Your task to perform on an android device: snooze an email in the gmail app Image 0: 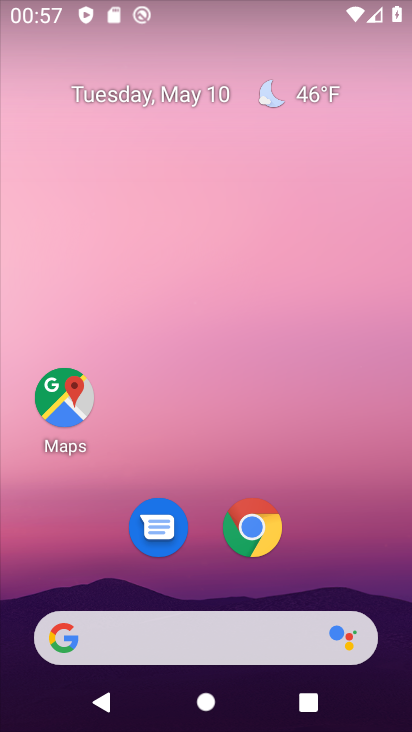
Step 0: drag from (285, 384) to (130, 116)
Your task to perform on an android device: snooze an email in the gmail app Image 1: 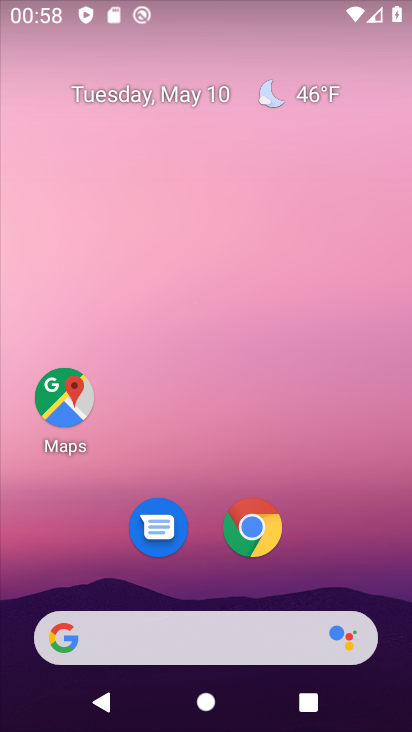
Step 1: drag from (313, 569) to (102, 157)
Your task to perform on an android device: snooze an email in the gmail app Image 2: 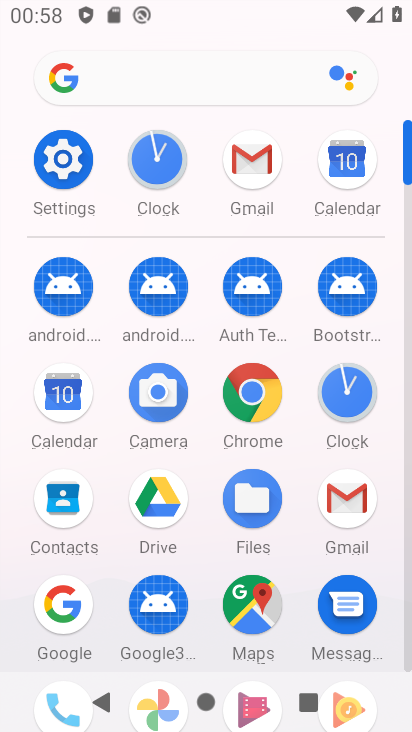
Step 2: click (348, 501)
Your task to perform on an android device: snooze an email in the gmail app Image 3: 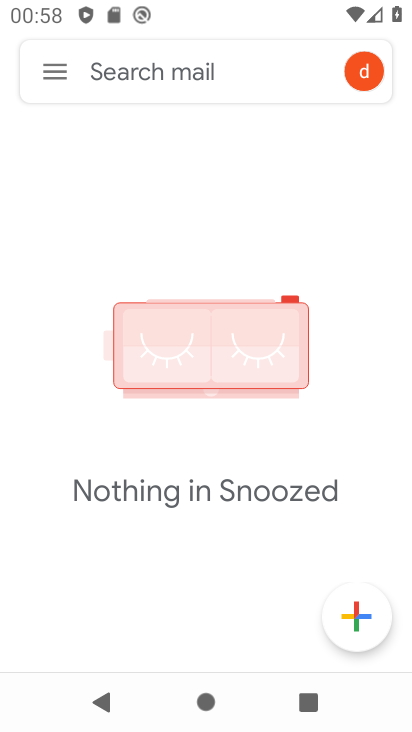
Step 3: click (56, 73)
Your task to perform on an android device: snooze an email in the gmail app Image 4: 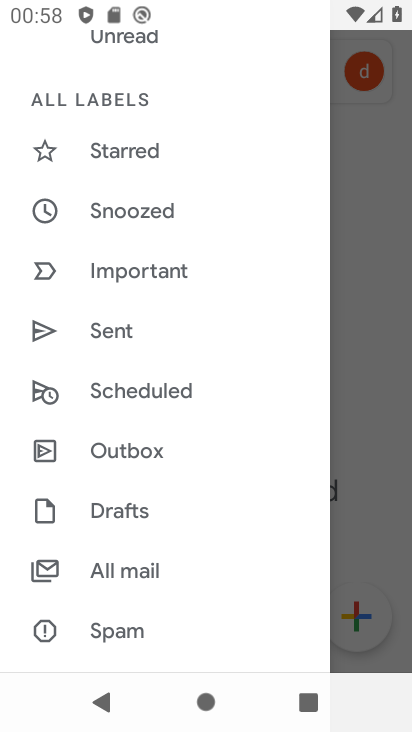
Step 4: drag from (125, 177) to (109, 582)
Your task to perform on an android device: snooze an email in the gmail app Image 5: 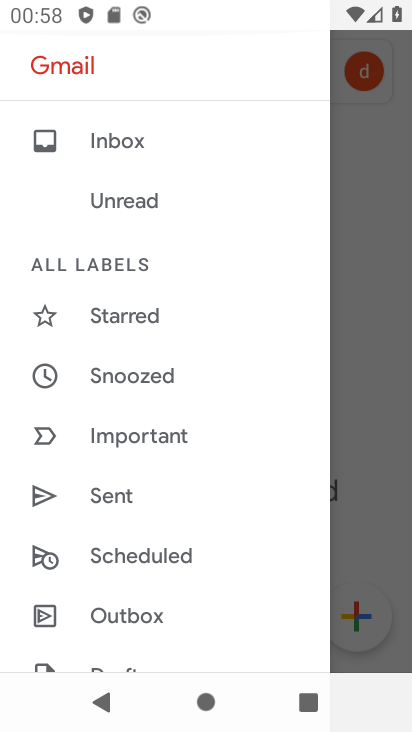
Step 5: click (105, 135)
Your task to perform on an android device: snooze an email in the gmail app Image 6: 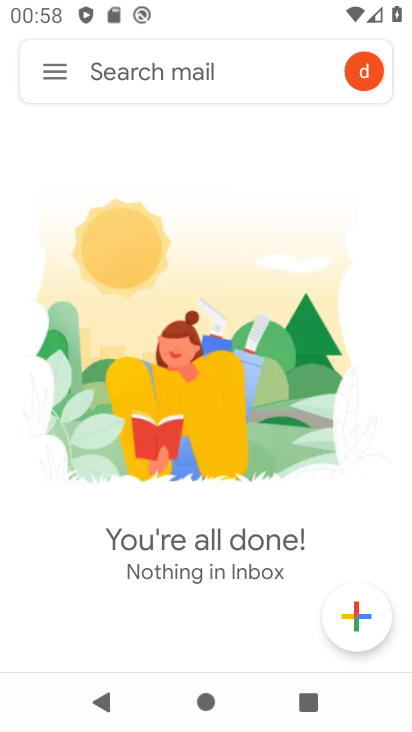
Step 6: task complete